Your task to perform on an android device: turn off improve location accuracy Image 0: 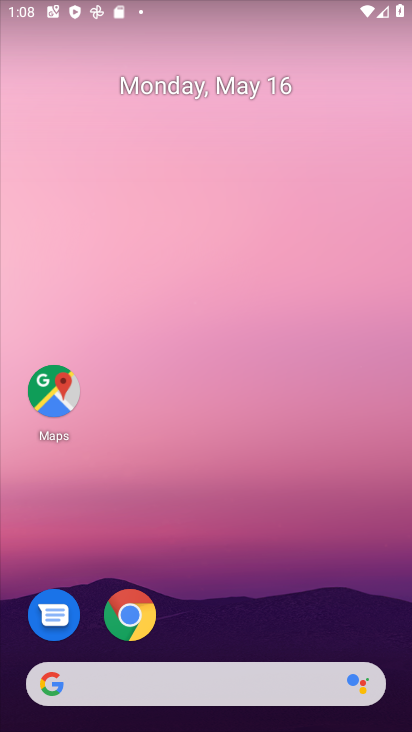
Step 0: drag from (224, 580) to (260, 0)
Your task to perform on an android device: turn off improve location accuracy Image 1: 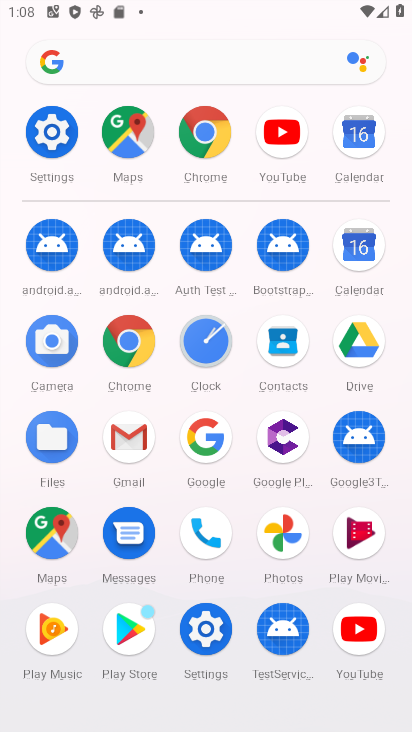
Step 1: click (65, 140)
Your task to perform on an android device: turn off improve location accuracy Image 2: 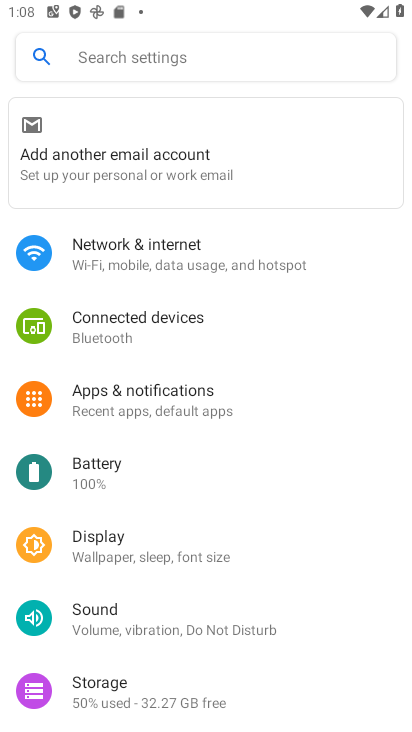
Step 2: drag from (157, 703) to (253, 156)
Your task to perform on an android device: turn off improve location accuracy Image 3: 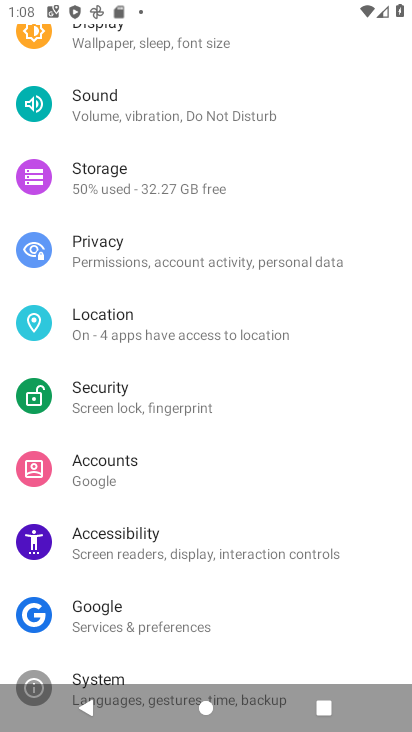
Step 3: click (145, 326)
Your task to perform on an android device: turn off improve location accuracy Image 4: 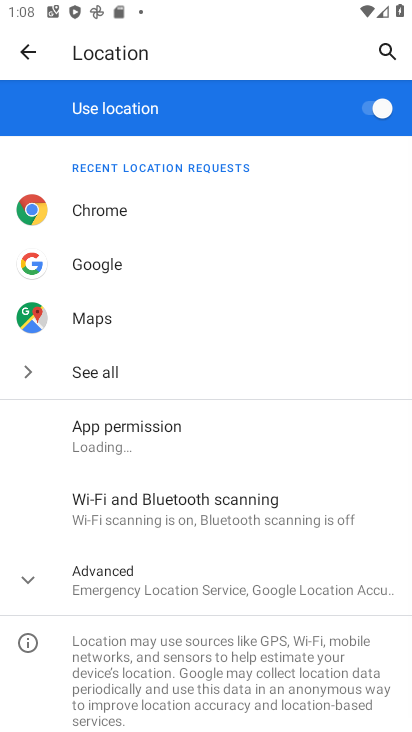
Step 4: drag from (230, 594) to (270, 348)
Your task to perform on an android device: turn off improve location accuracy Image 5: 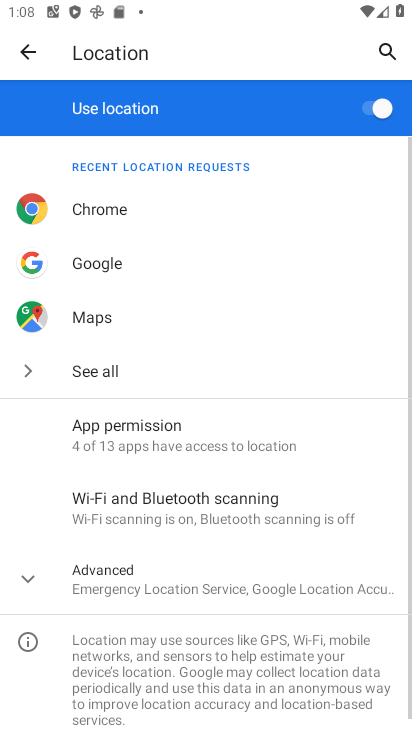
Step 5: click (172, 569)
Your task to perform on an android device: turn off improve location accuracy Image 6: 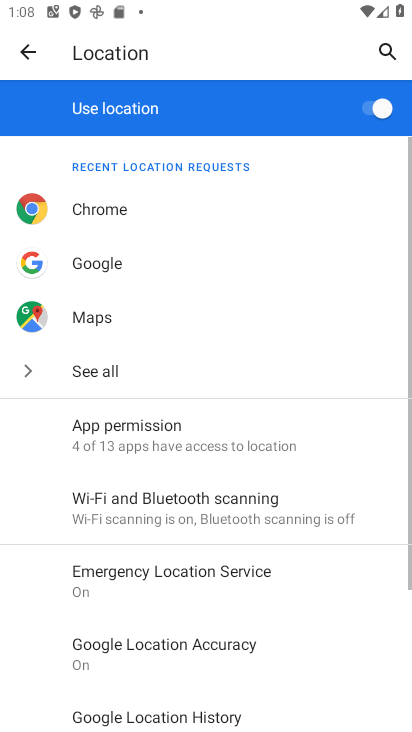
Step 6: drag from (241, 641) to (304, 232)
Your task to perform on an android device: turn off improve location accuracy Image 7: 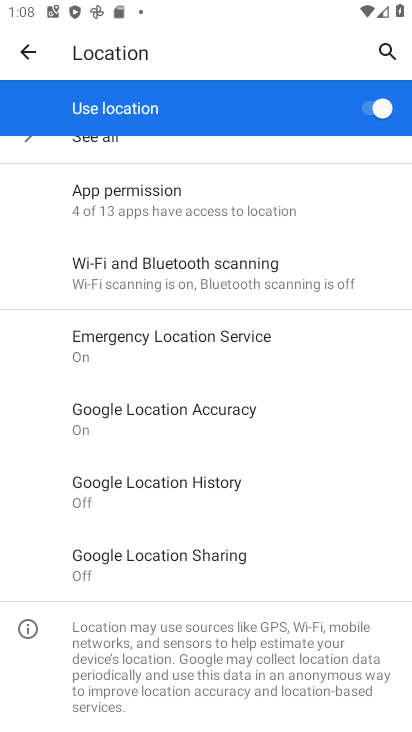
Step 7: click (231, 406)
Your task to perform on an android device: turn off improve location accuracy Image 8: 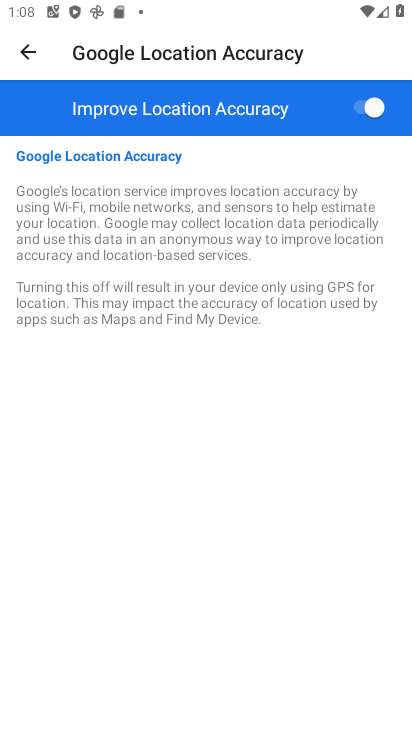
Step 8: click (347, 105)
Your task to perform on an android device: turn off improve location accuracy Image 9: 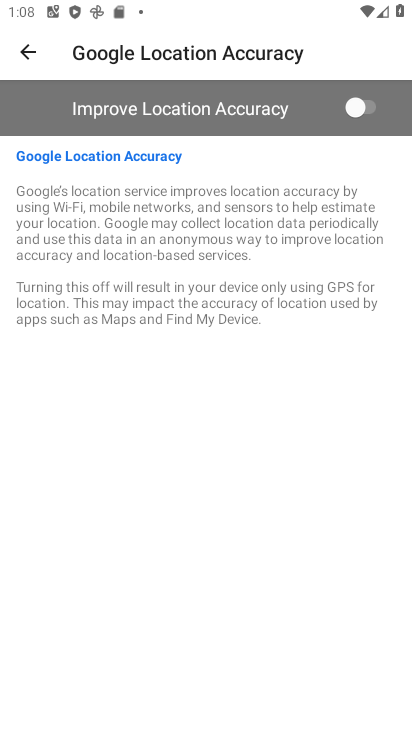
Step 9: task complete